Your task to perform on an android device: Check the news Image 0: 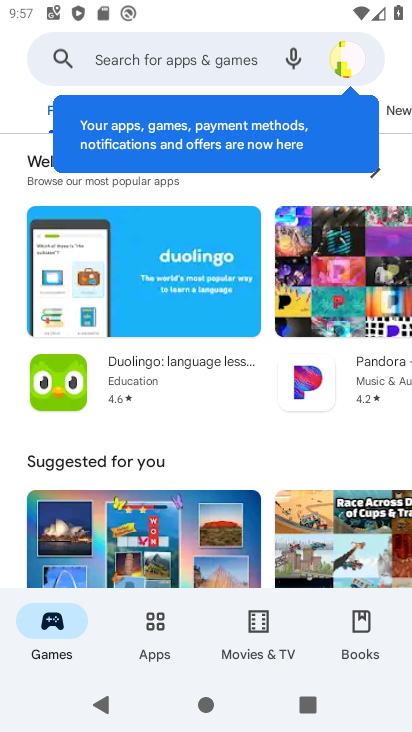
Step 0: press back button
Your task to perform on an android device: Check the news Image 1: 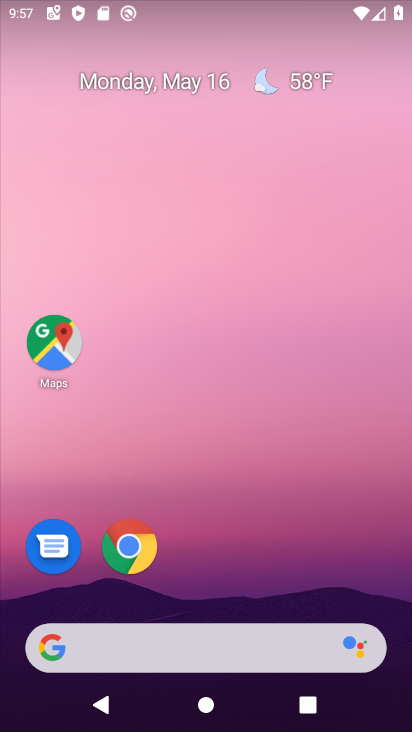
Step 1: drag from (243, 589) to (220, 127)
Your task to perform on an android device: Check the news Image 2: 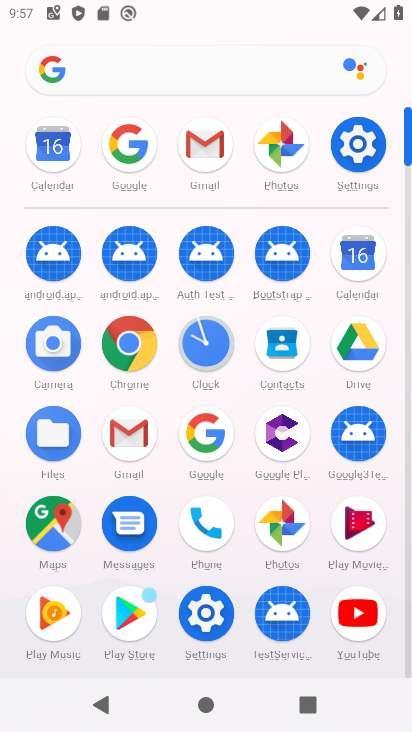
Step 2: click (202, 432)
Your task to perform on an android device: Check the news Image 3: 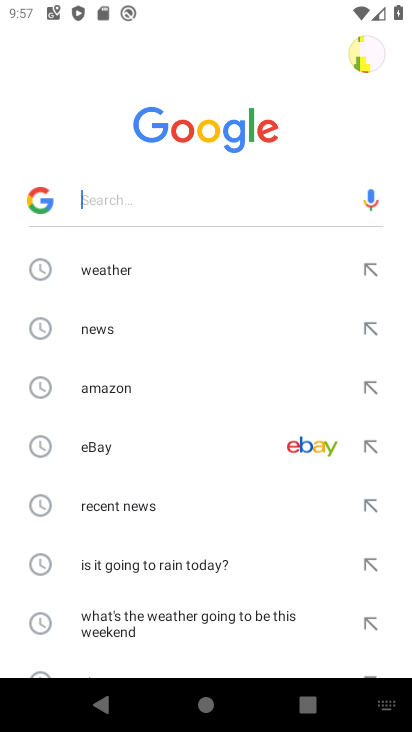
Step 3: click (109, 336)
Your task to perform on an android device: Check the news Image 4: 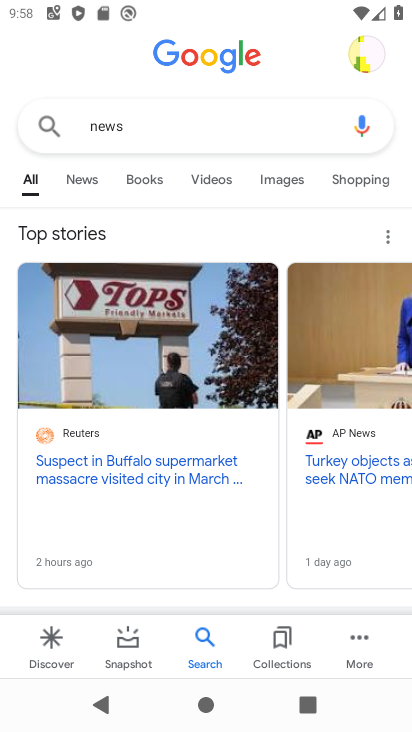
Step 4: task complete